Your task to perform on an android device: Search for "razer deathadder" on newegg, select the first entry, and add it to the cart. Image 0: 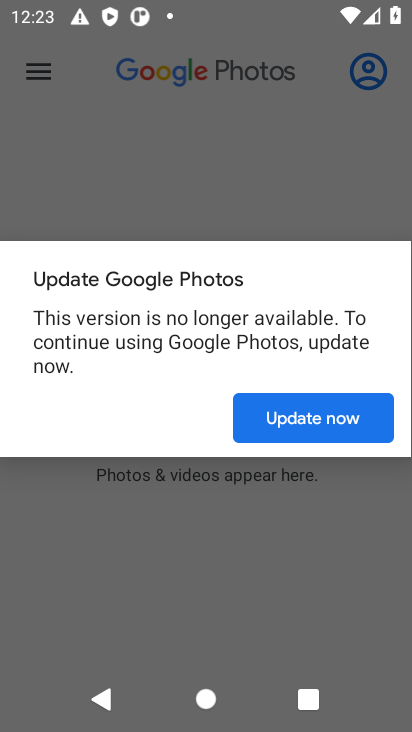
Step 0: press home button
Your task to perform on an android device: Search for "razer deathadder" on newegg, select the first entry, and add it to the cart. Image 1: 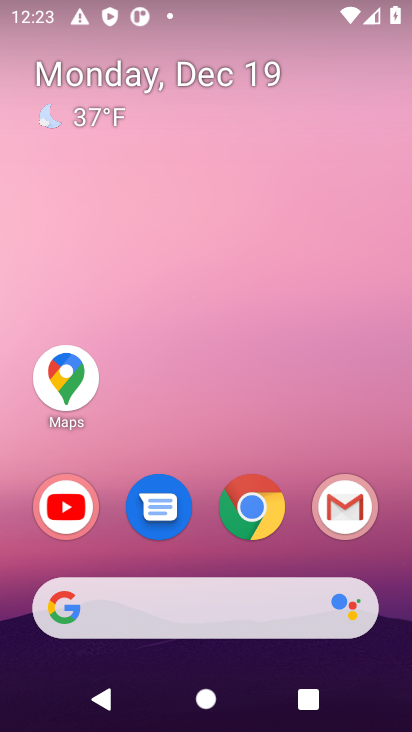
Step 1: click (262, 512)
Your task to perform on an android device: Search for "razer deathadder" on newegg, select the first entry, and add it to the cart. Image 2: 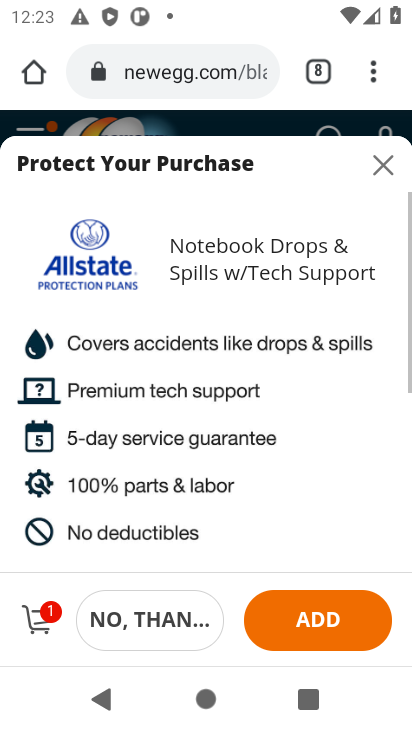
Step 2: click (380, 168)
Your task to perform on an android device: Search for "razer deathadder" on newegg, select the first entry, and add it to the cart. Image 3: 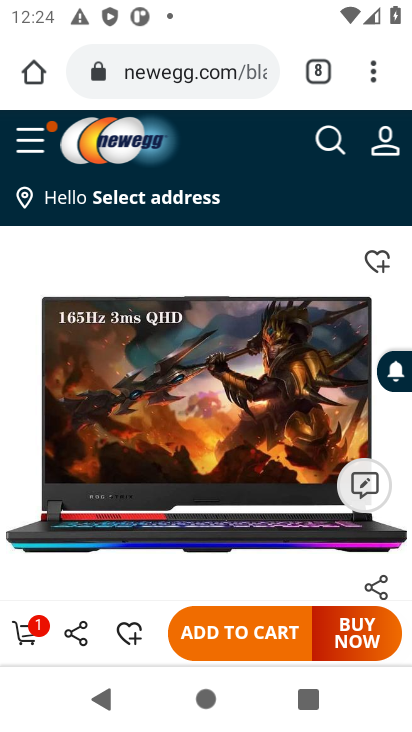
Step 3: click (328, 145)
Your task to perform on an android device: Search for "razer deathadder" on newegg, select the first entry, and add it to the cart. Image 4: 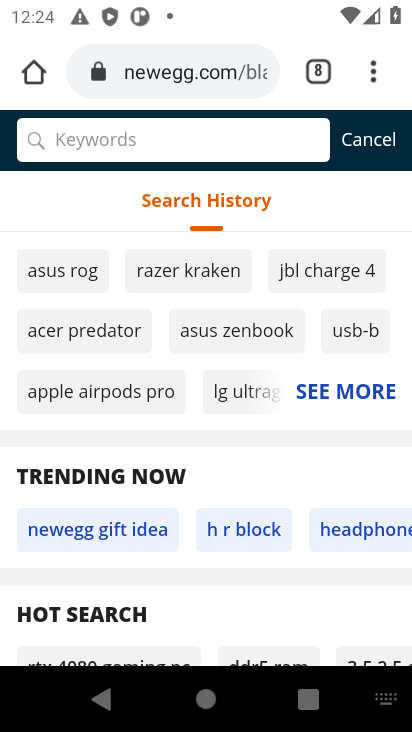
Step 4: type "razer deathadder"
Your task to perform on an android device: Search for "razer deathadder" on newegg, select the first entry, and add it to the cart. Image 5: 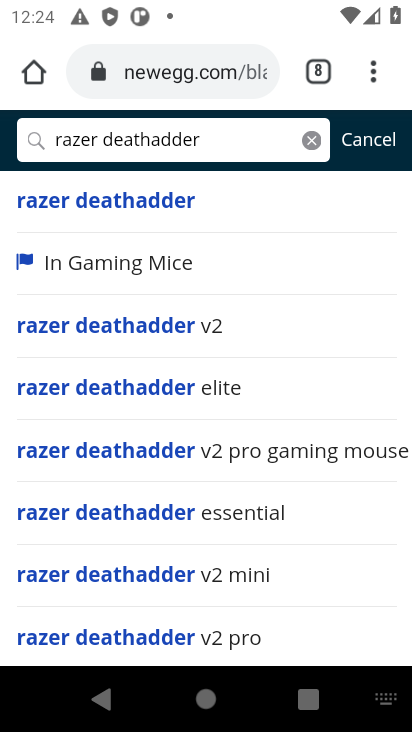
Step 5: click (143, 200)
Your task to perform on an android device: Search for "razer deathadder" on newegg, select the first entry, and add it to the cart. Image 6: 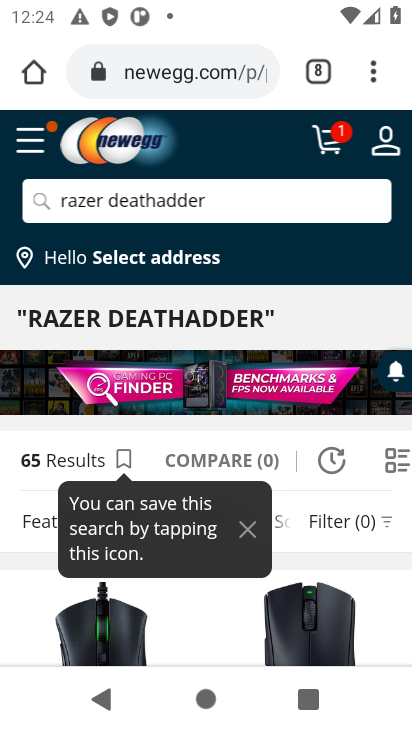
Step 6: drag from (176, 436) to (159, 221)
Your task to perform on an android device: Search for "razer deathadder" on newegg, select the first entry, and add it to the cart. Image 7: 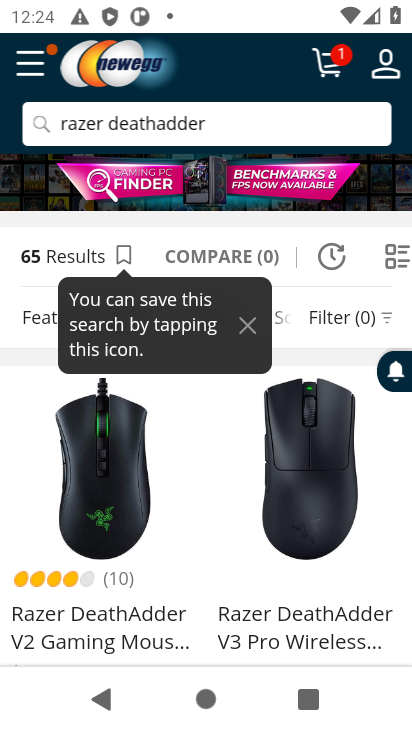
Step 7: drag from (141, 489) to (152, 298)
Your task to perform on an android device: Search for "razer deathadder" on newegg, select the first entry, and add it to the cart. Image 8: 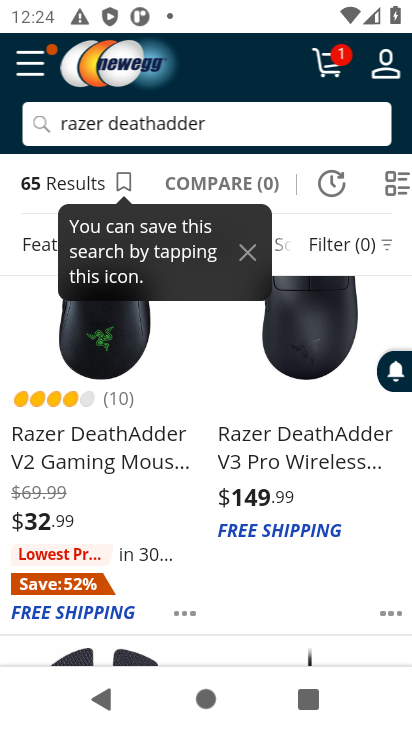
Step 8: click (83, 446)
Your task to perform on an android device: Search for "razer deathadder" on newegg, select the first entry, and add it to the cart. Image 9: 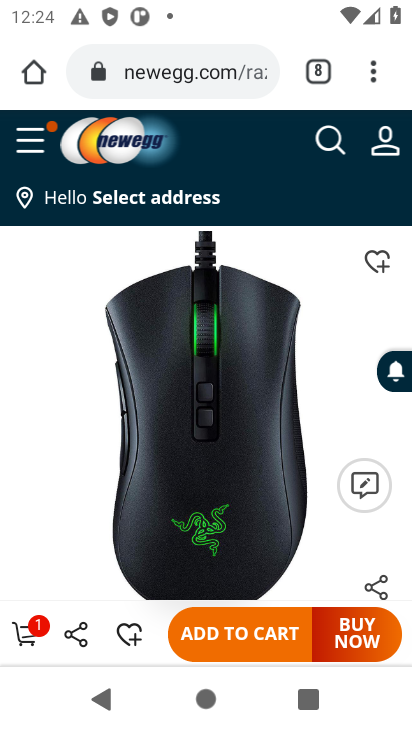
Step 9: click (241, 634)
Your task to perform on an android device: Search for "razer deathadder" on newegg, select the first entry, and add it to the cart. Image 10: 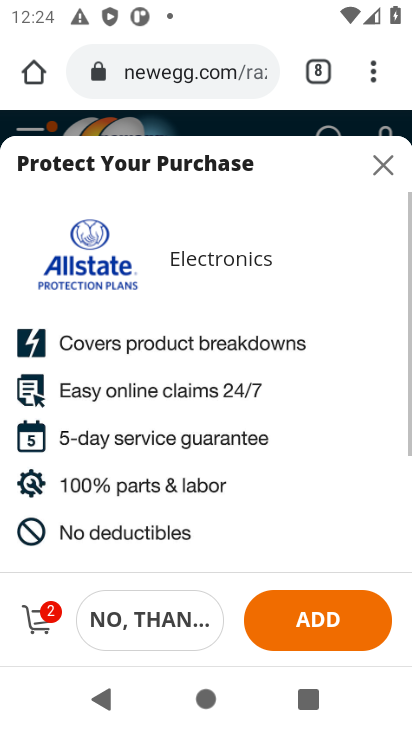
Step 10: task complete